Your task to perform on an android device: set the stopwatch Image 0: 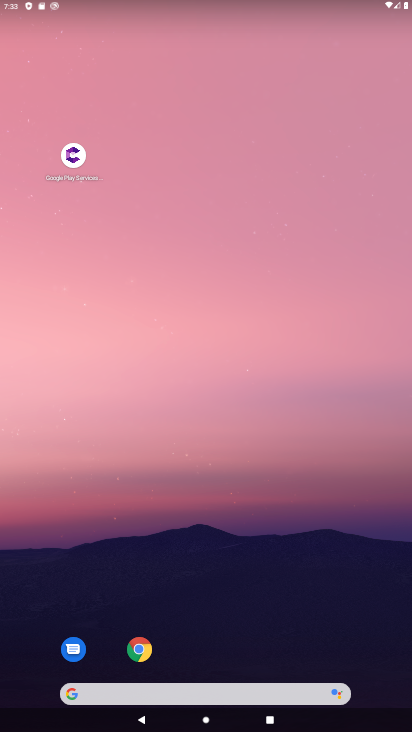
Step 0: drag from (275, 620) to (265, 272)
Your task to perform on an android device: set the stopwatch Image 1: 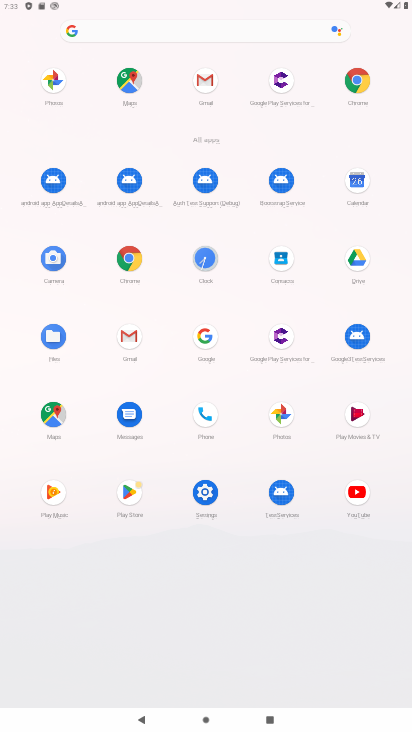
Step 1: click (204, 259)
Your task to perform on an android device: set the stopwatch Image 2: 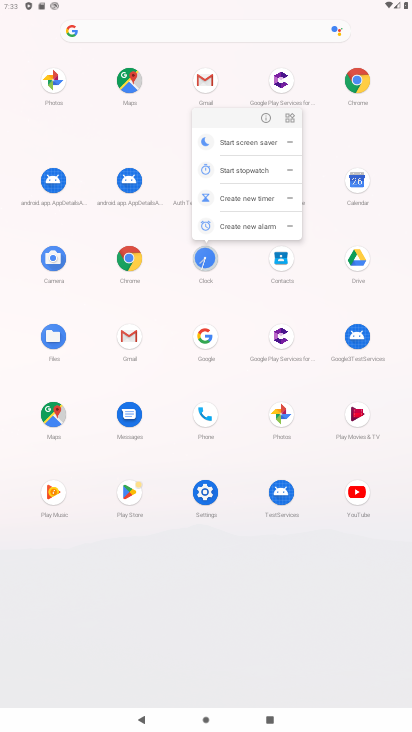
Step 2: click (193, 258)
Your task to perform on an android device: set the stopwatch Image 3: 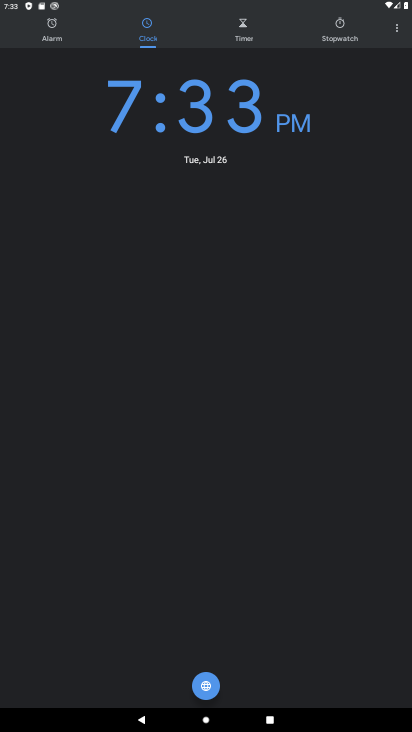
Step 3: click (341, 27)
Your task to perform on an android device: set the stopwatch Image 4: 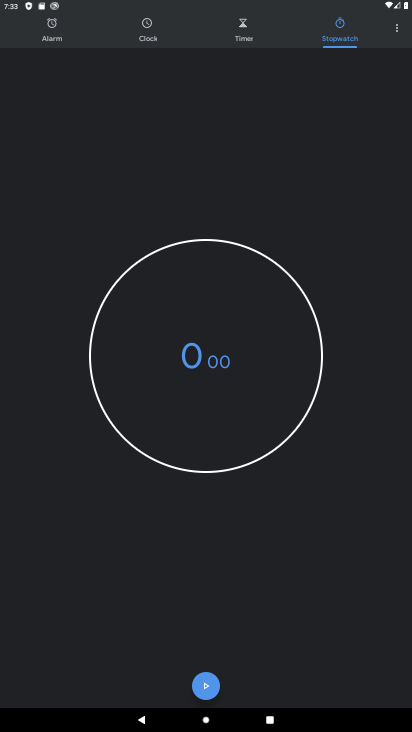
Step 4: task complete